Your task to perform on an android device: install app "Google Play services" Image 0: 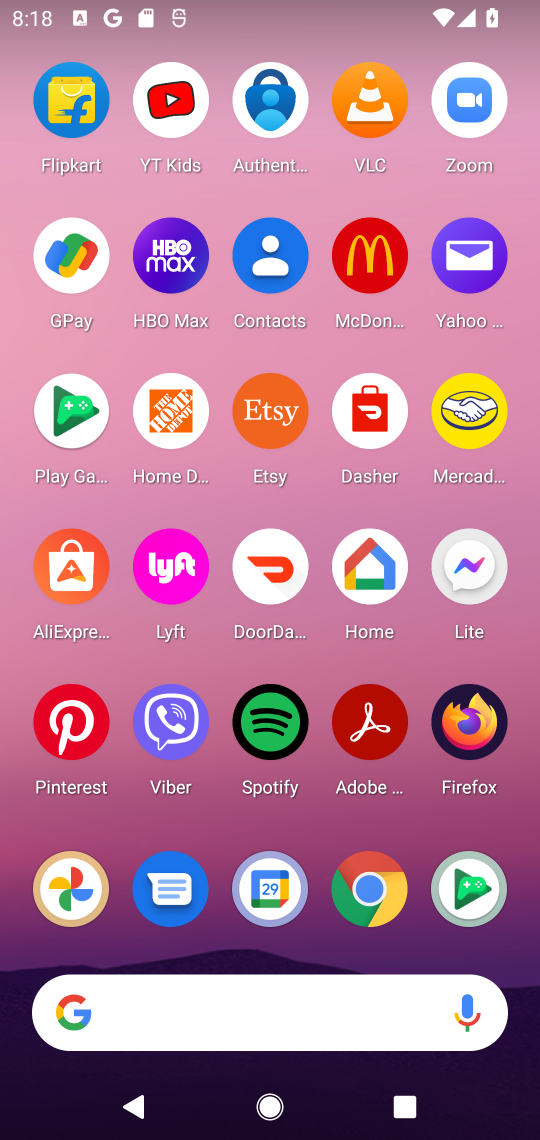
Step 0: press home button
Your task to perform on an android device: install app "Google Play services" Image 1: 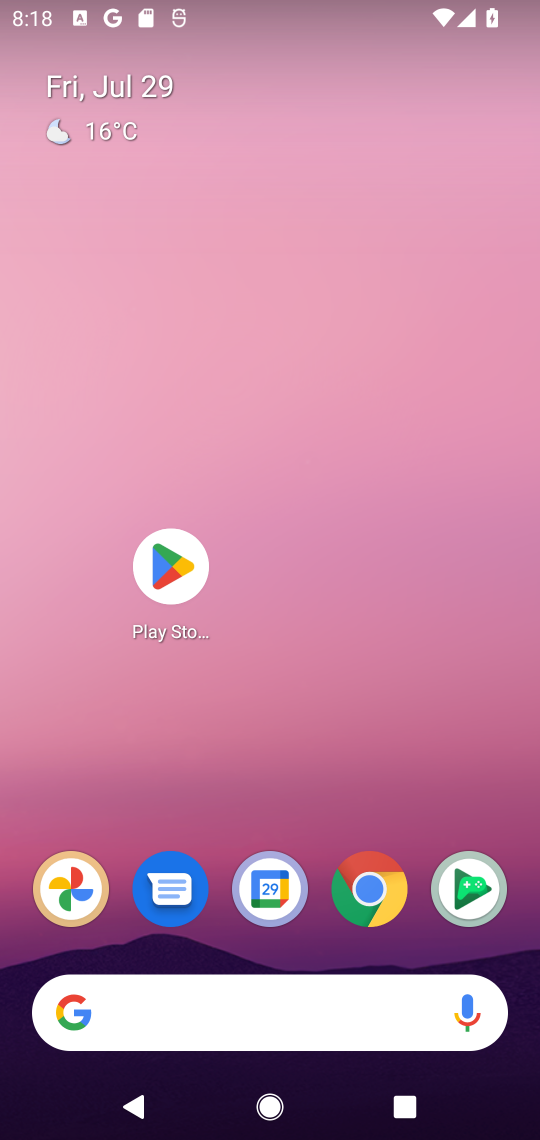
Step 1: click (165, 556)
Your task to perform on an android device: install app "Google Play services" Image 2: 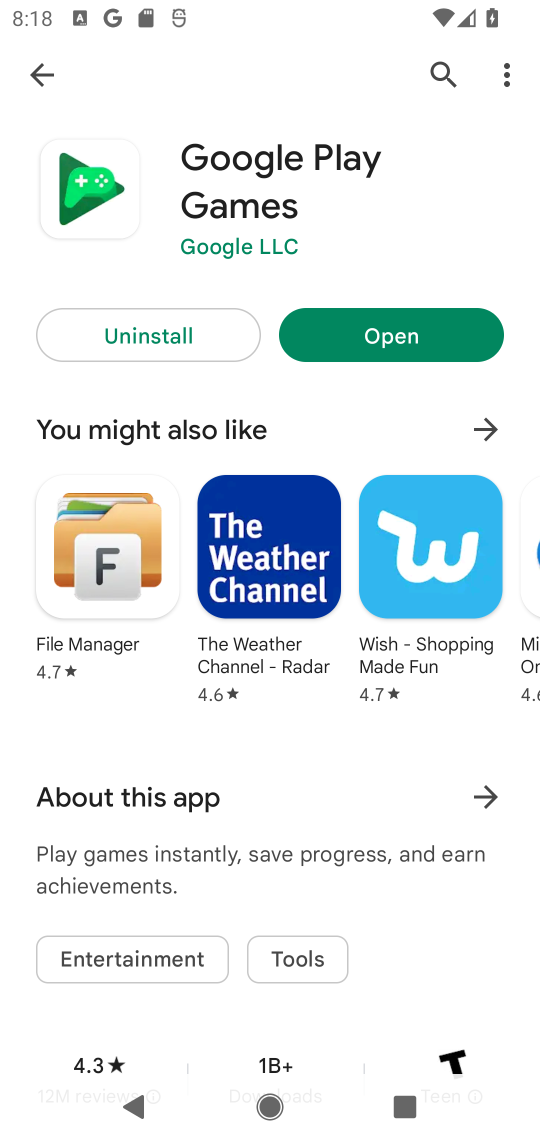
Step 2: task complete